Your task to perform on an android device: create a new album in the google photos Image 0: 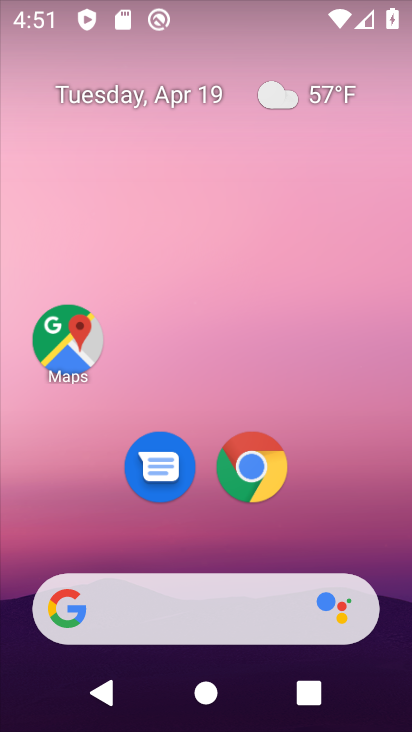
Step 0: click (390, 32)
Your task to perform on an android device: create a new album in the google photos Image 1: 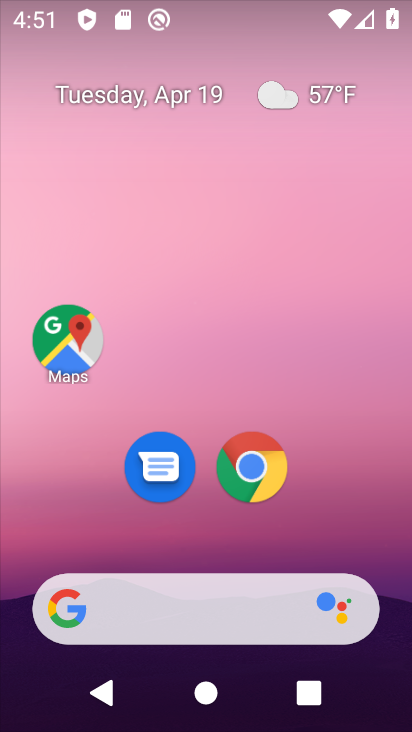
Step 1: drag from (239, 520) to (211, 319)
Your task to perform on an android device: create a new album in the google photos Image 2: 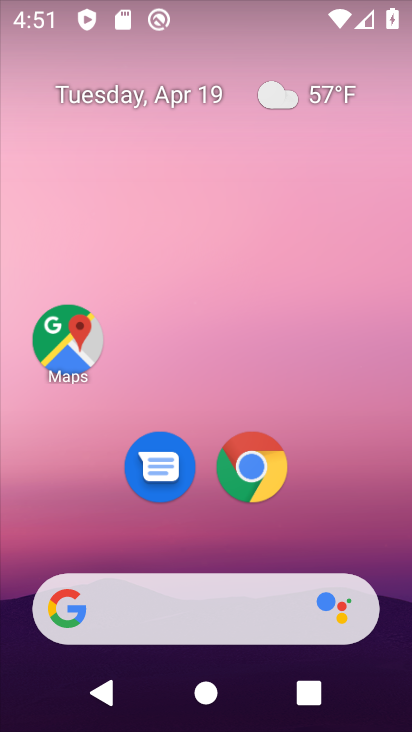
Step 2: drag from (233, 641) to (225, 251)
Your task to perform on an android device: create a new album in the google photos Image 3: 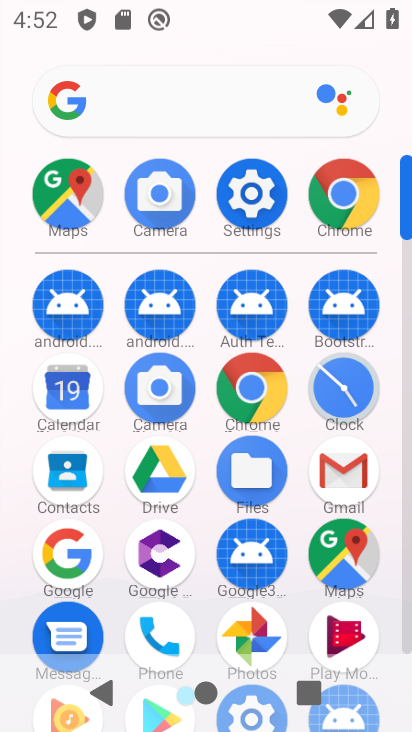
Step 3: click (256, 624)
Your task to perform on an android device: create a new album in the google photos Image 4: 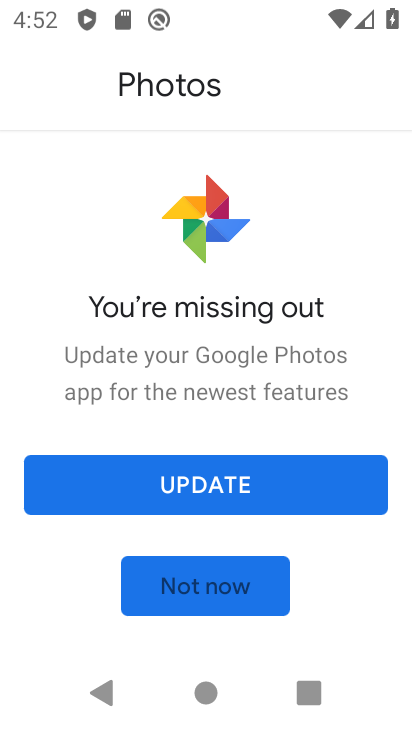
Step 4: click (245, 598)
Your task to perform on an android device: create a new album in the google photos Image 5: 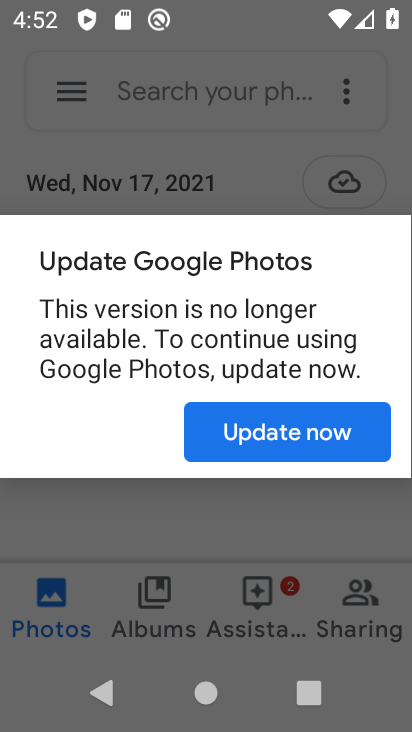
Step 5: task complete